Your task to perform on an android device: turn off notifications in google photos Image 0: 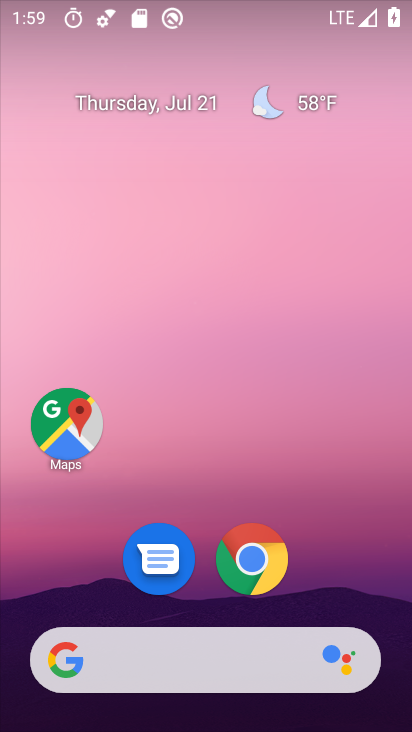
Step 0: drag from (363, 535) to (349, 196)
Your task to perform on an android device: turn off notifications in google photos Image 1: 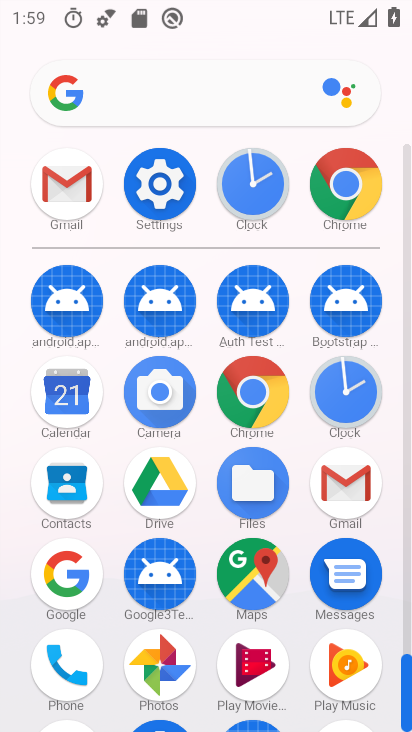
Step 1: click (160, 664)
Your task to perform on an android device: turn off notifications in google photos Image 2: 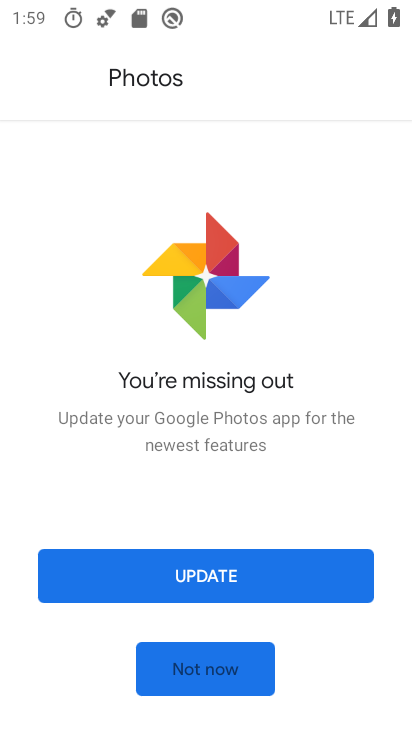
Step 2: click (281, 578)
Your task to perform on an android device: turn off notifications in google photos Image 3: 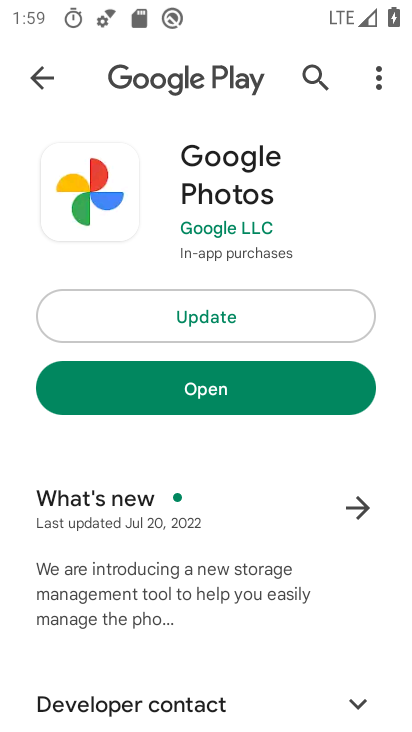
Step 3: click (300, 318)
Your task to perform on an android device: turn off notifications in google photos Image 4: 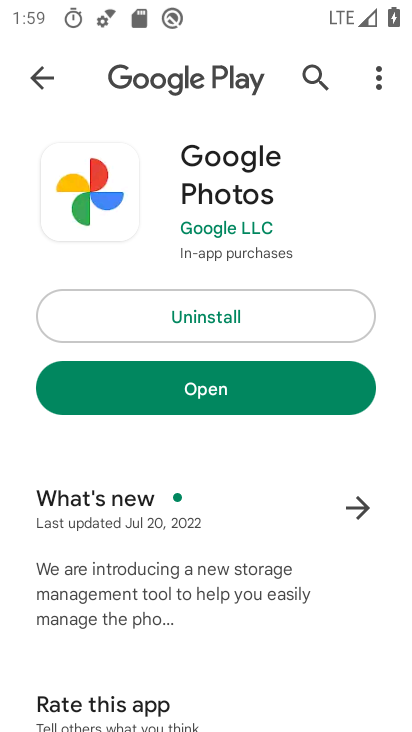
Step 4: click (315, 392)
Your task to perform on an android device: turn off notifications in google photos Image 5: 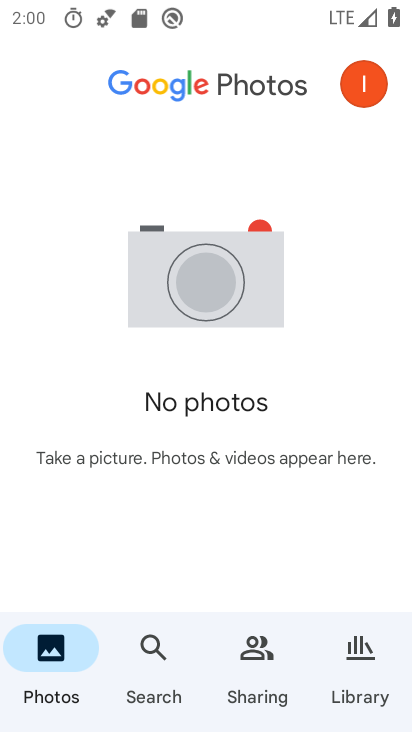
Step 5: click (361, 83)
Your task to perform on an android device: turn off notifications in google photos Image 6: 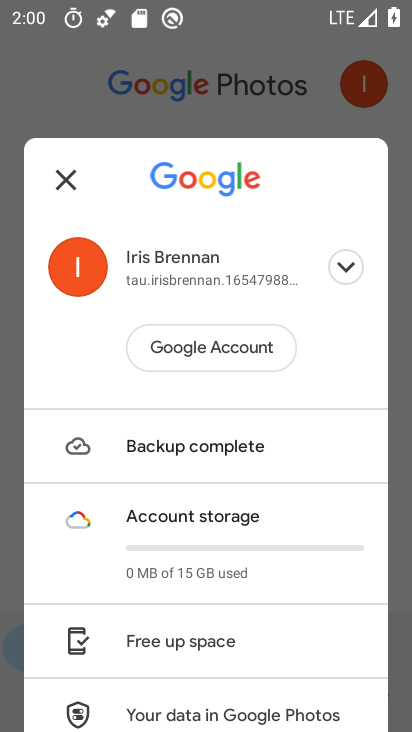
Step 6: drag from (309, 588) to (318, 380)
Your task to perform on an android device: turn off notifications in google photos Image 7: 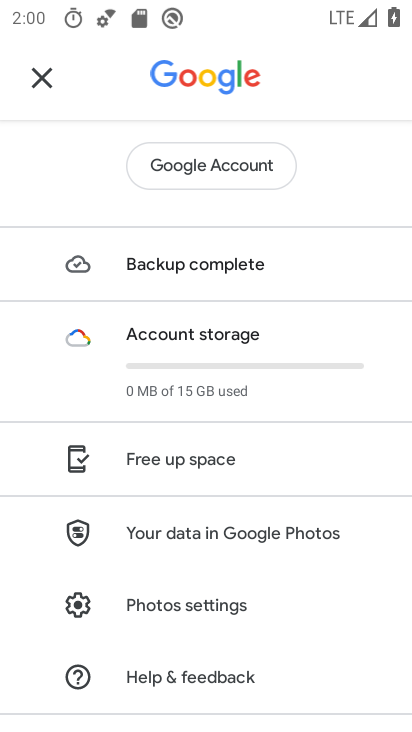
Step 7: drag from (310, 595) to (314, 440)
Your task to perform on an android device: turn off notifications in google photos Image 8: 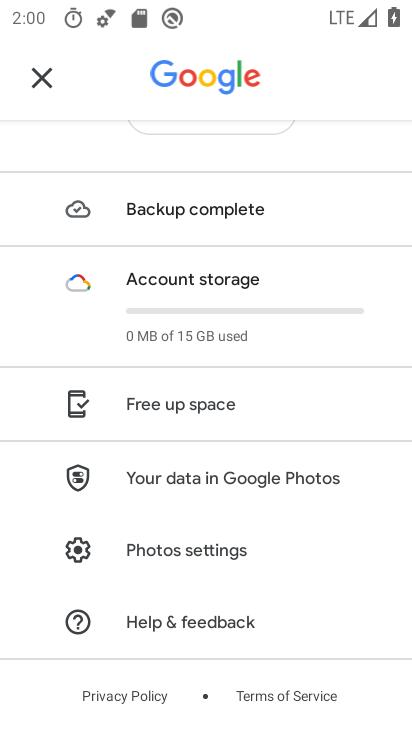
Step 8: click (193, 550)
Your task to perform on an android device: turn off notifications in google photos Image 9: 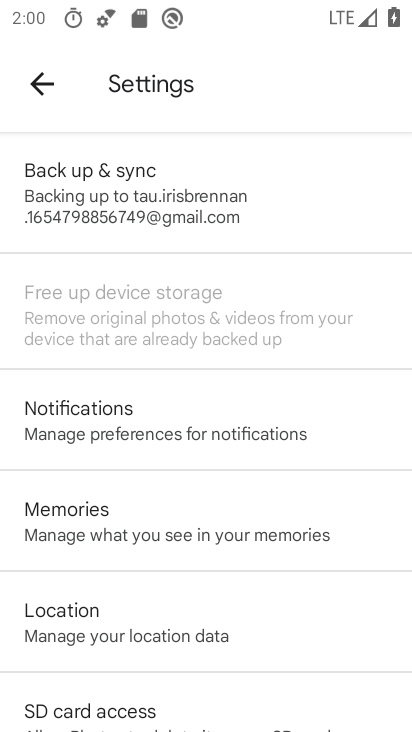
Step 9: drag from (281, 618) to (307, 489)
Your task to perform on an android device: turn off notifications in google photos Image 10: 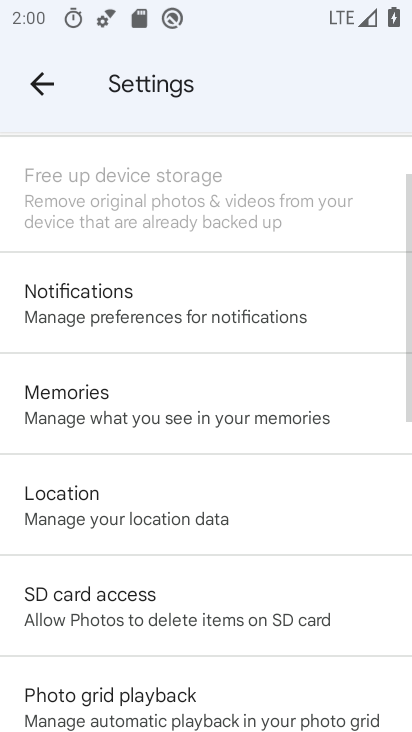
Step 10: drag from (317, 545) to (323, 429)
Your task to perform on an android device: turn off notifications in google photos Image 11: 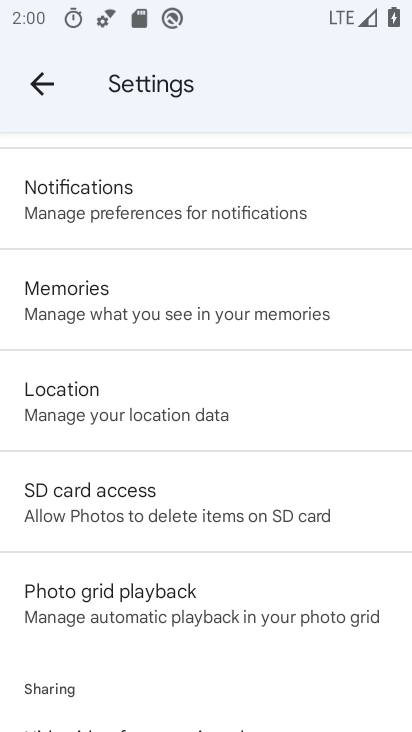
Step 11: drag from (326, 560) to (335, 409)
Your task to perform on an android device: turn off notifications in google photos Image 12: 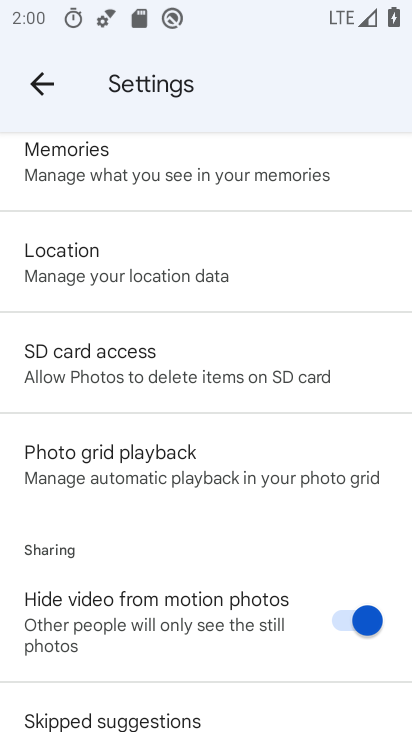
Step 12: drag from (327, 527) to (346, 330)
Your task to perform on an android device: turn off notifications in google photos Image 13: 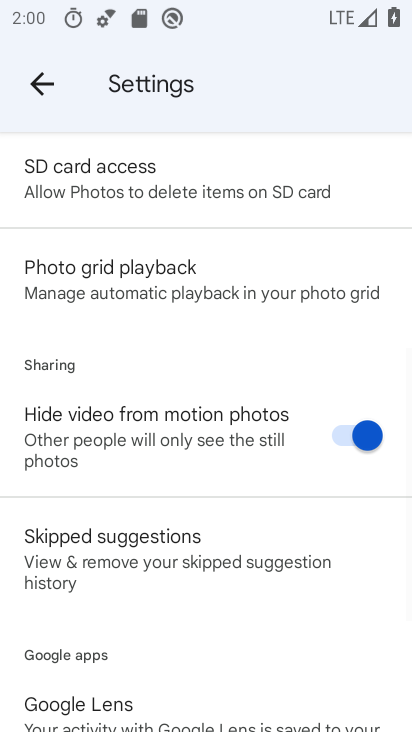
Step 13: drag from (276, 591) to (283, 436)
Your task to perform on an android device: turn off notifications in google photos Image 14: 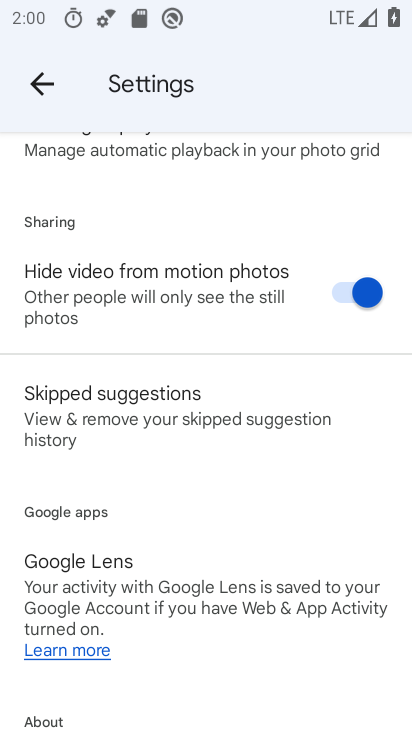
Step 14: drag from (299, 323) to (281, 466)
Your task to perform on an android device: turn off notifications in google photos Image 15: 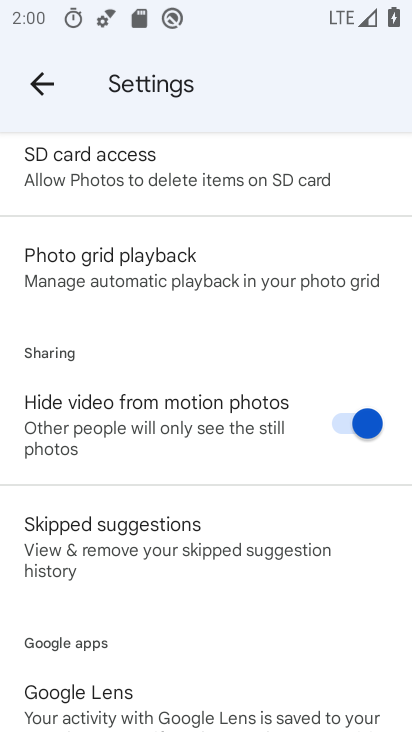
Step 15: drag from (263, 267) to (247, 446)
Your task to perform on an android device: turn off notifications in google photos Image 16: 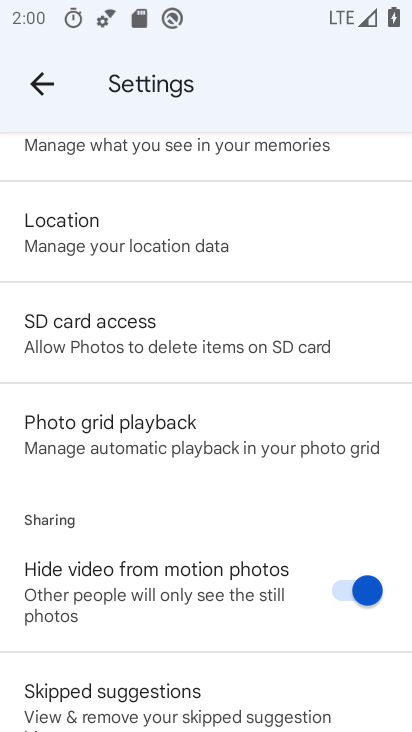
Step 16: drag from (278, 233) to (278, 402)
Your task to perform on an android device: turn off notifications in google photos Image 17: 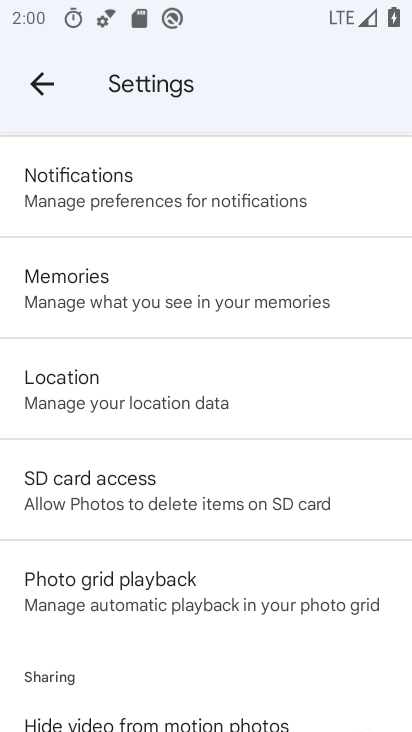
Step 17: drag from (292, 240) to (274, 410)
Your task to perform on an android device: turn off notifications in google photos Image 18: 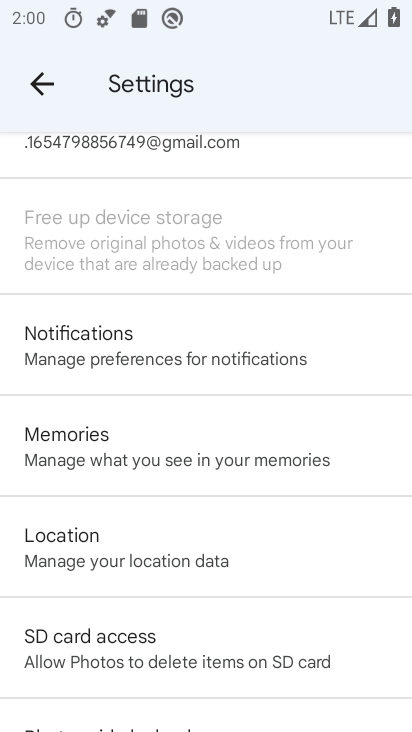
Step 18: click (285, 353)
Your task to perform on an android device: turn off notifications in google photos Image 19: 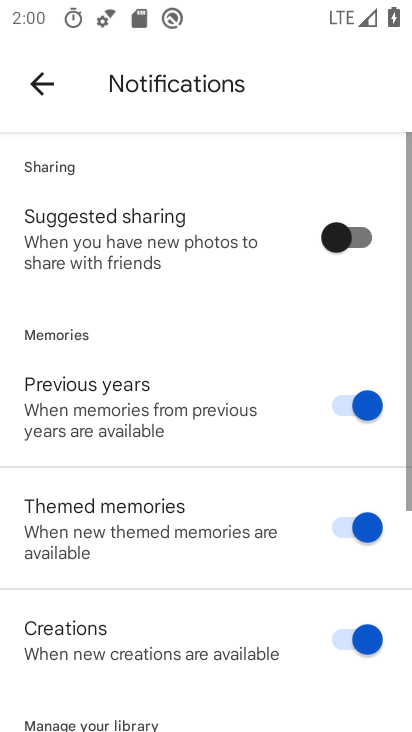
Step 19: drag from (275, 483) to (278, 357)
Your task to perform on an android device: turn off notifications in google photos Image 20: 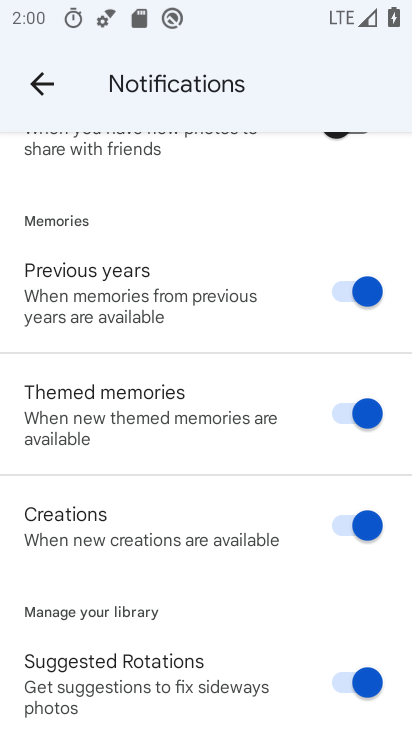
Step 20: drag from (282, 576) to (283, 436)
Your task to perform on an android device: turn off notifications in google photos Image 21: 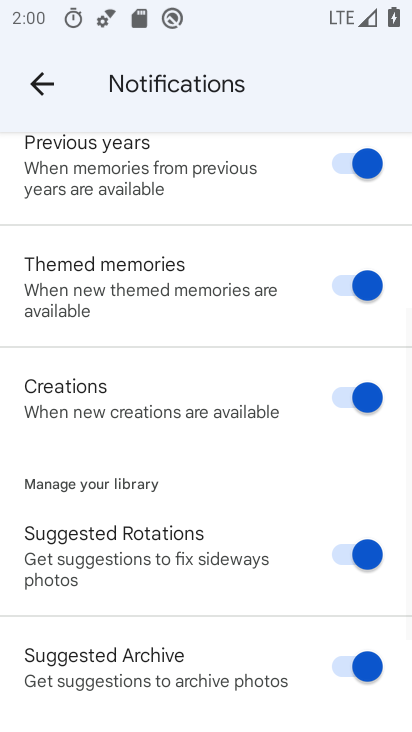
Step 21: drag from (272, 601) to (282, 444)
Your task to perform on an android device: turn off notifications in google photos Image 22: 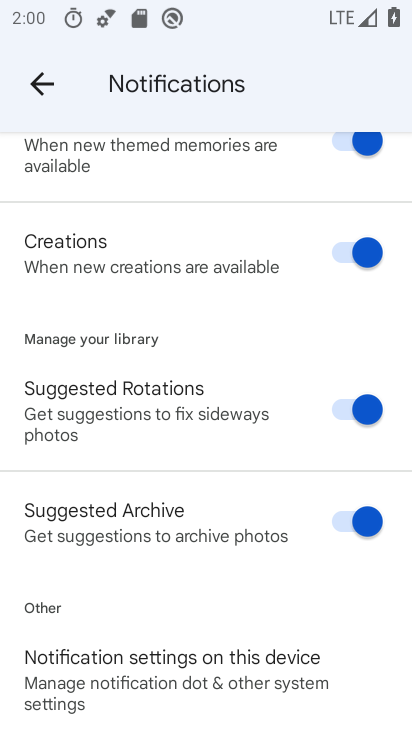
Step 22: drag from (249, 580) to (260, 416)
Your task to perform on an android device: turn off notifications in google photos Image 23: 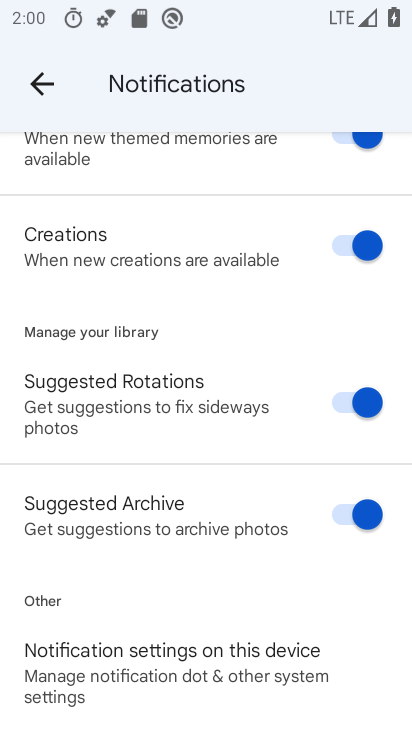
Step 23: click (252, 661)
Your task to perform on an android device: turn off notifications in google photos Image 24: 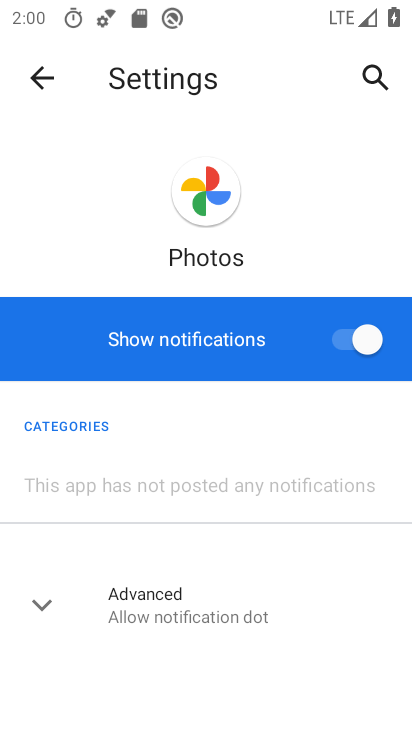
Step 24: click (363, 356)
Your task to perform on an android device: turn off notifications in google photos Image 25: 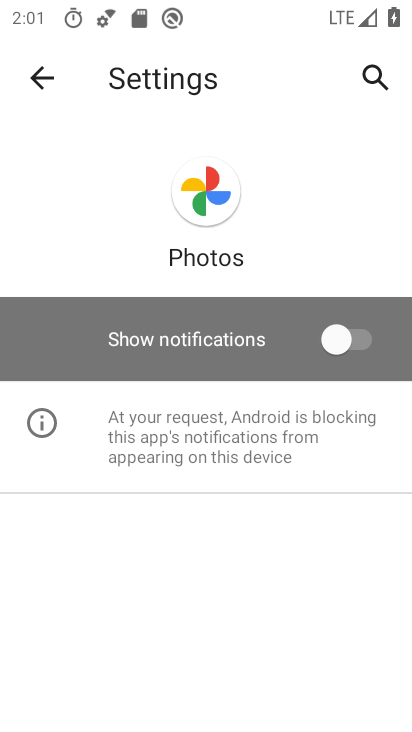
Step 25: task complete